Your task to perform on an android device: find photos in the google photos app Image 0: 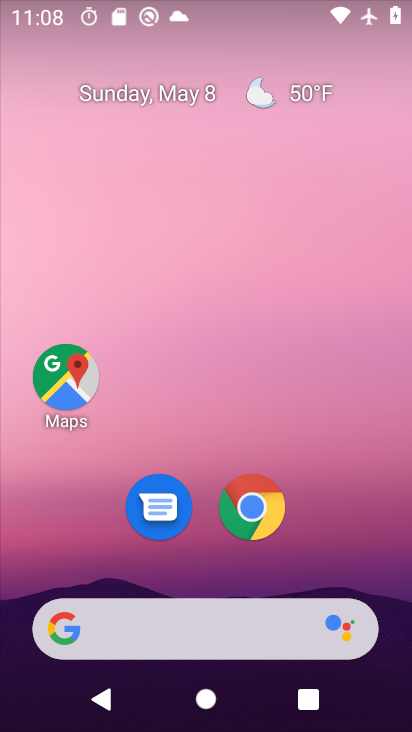
Step 0: drag from (221, 728) to (218, 258)
Your task to perform on an android device: find photos in the google photos app Image 1: 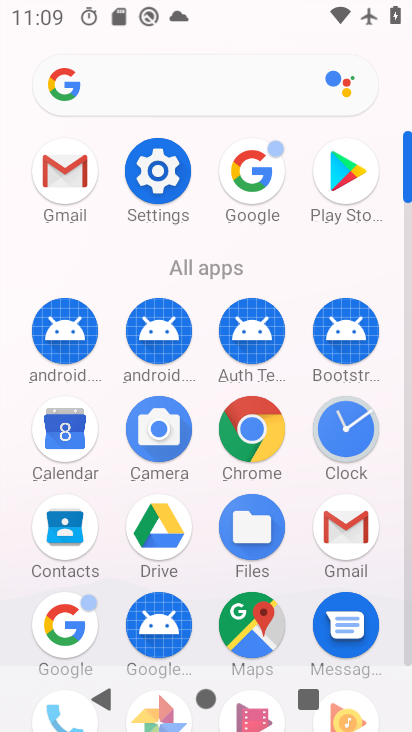
Step 1: drag from (184, 666) to (178, 287)
Your task to perform on an android device: find photos in the google photos app Image 2: 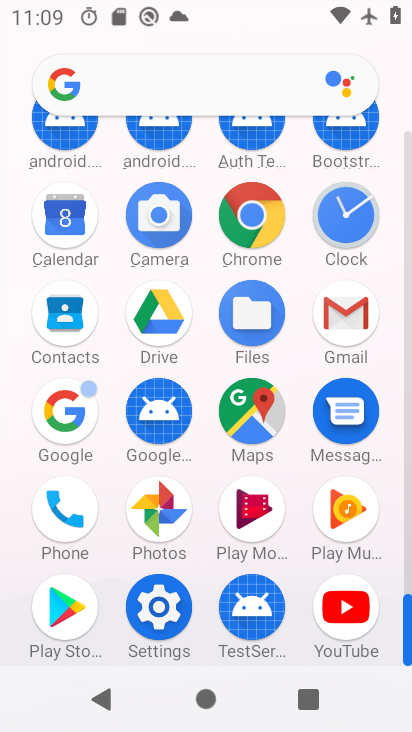
Step 2: click (167, 498)
Your task to perform on an android device: find photos in the google photos app Image 3: 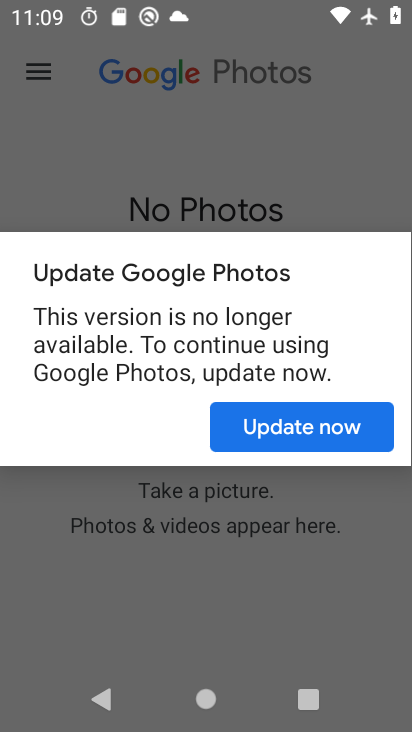
Step 3: task complete